Your task to perform on an android device: Go to Google maps Image 0: 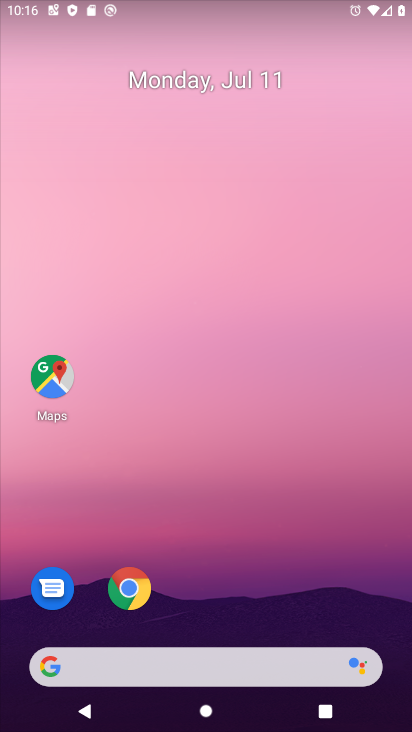
Step 0: click (52, 360)
Your task to perform on an android device: Go to Google maps Image 1: 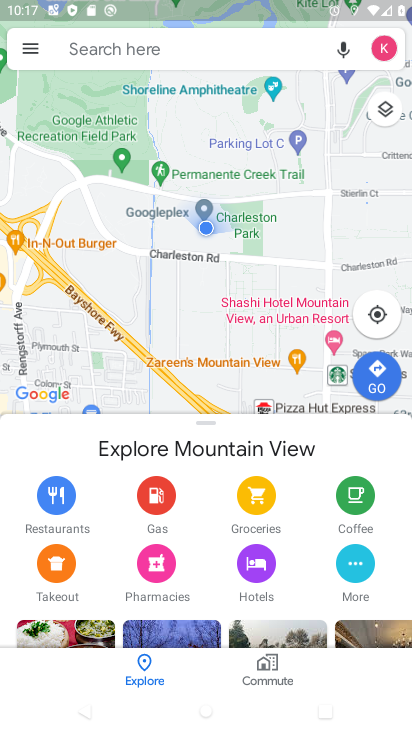
Step 1: task complete